Your task to perform on an android device: open chrome and create a bookmark for the current page Image 0: 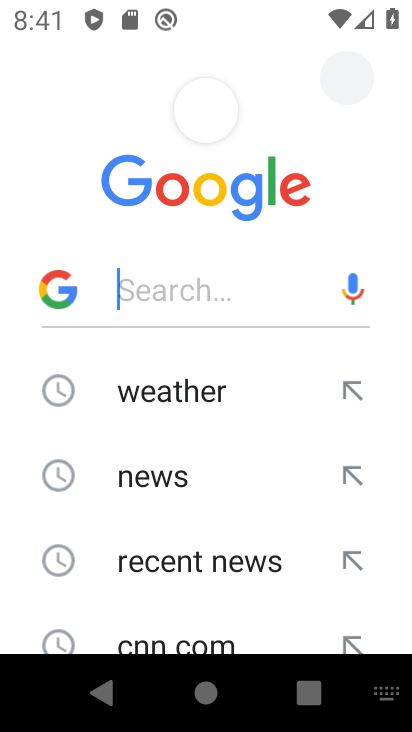
Step 0: press home button
Your task to perform on an android device: open chrome and create a bookmark for the current page Image 1: 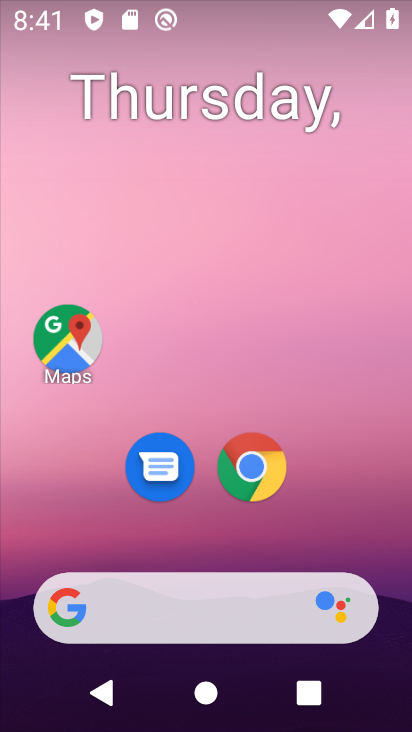
Step 1: click (265, 461)
Your task to perform on an android device: open chrome and create a bookmark for the current page Image 2: 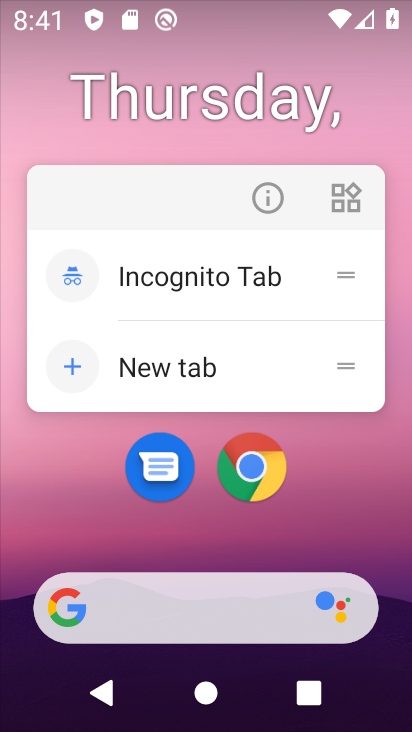
Step 2: click (265, 461)
Your task to perform on an android device: open chrome and create a bookmark for the current page Image 3: 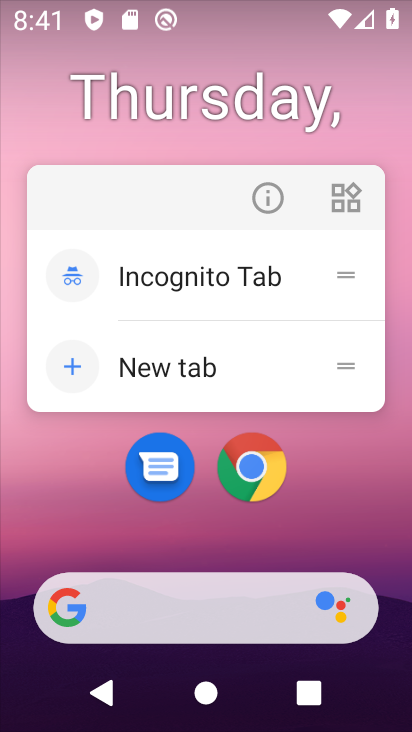
Step 3: click (265, 461)
Your task to perform on an android device: open chrome and create a bookmark for the current page Image 4: 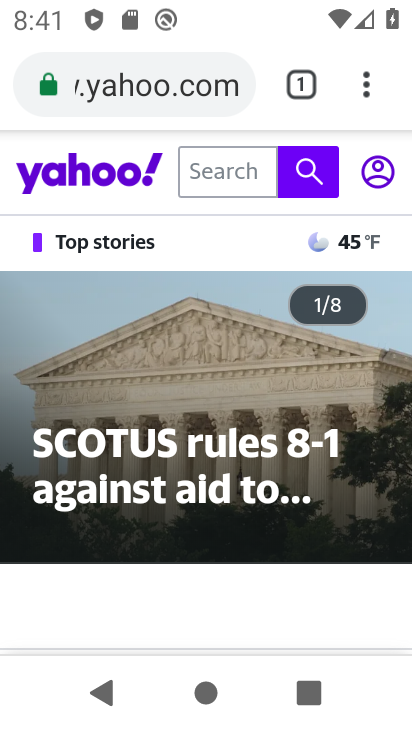
Step 4: click (374, 77)
Your task to perform on an android device: open chrome and create a bookmark for the current page Image 5: 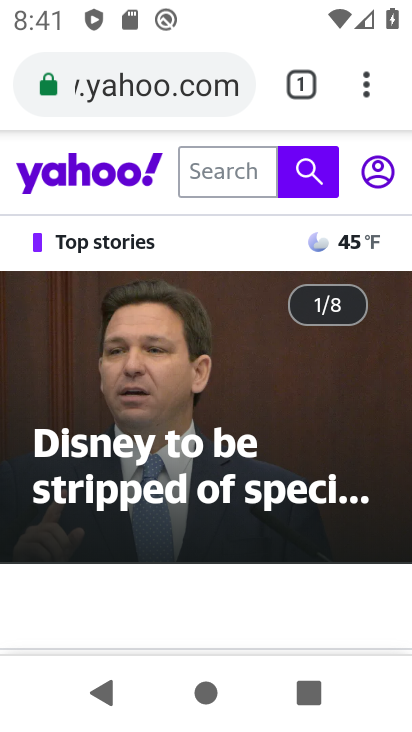
Step 5: click (354, 93)
Your task to perform on an android device: open chrome and create a bookmark for the current page Image 6: 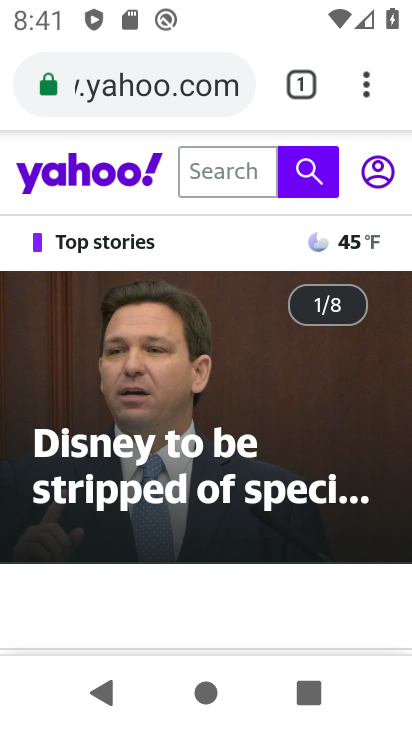
Step 6: click (363, 83)
Your task to perform on an android device: open chrome and create a bookmark for the current page Image 7: 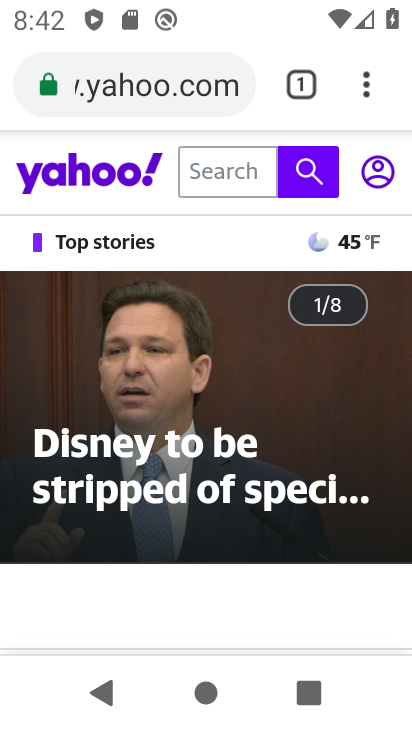
Step 7: click (363, 83)
Your task to perform on an android device: open chrome and create a bookmark for the current page Image 8: 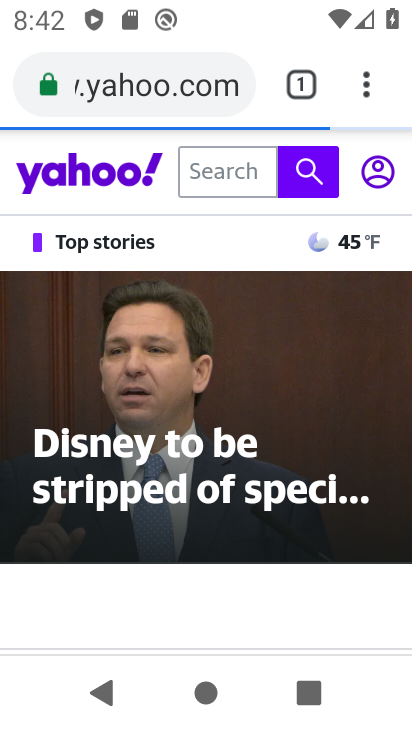
Step 8: click (363, 83)
Your task to perform on an android device: open chrome and create a bookmark for the current page Image 9: 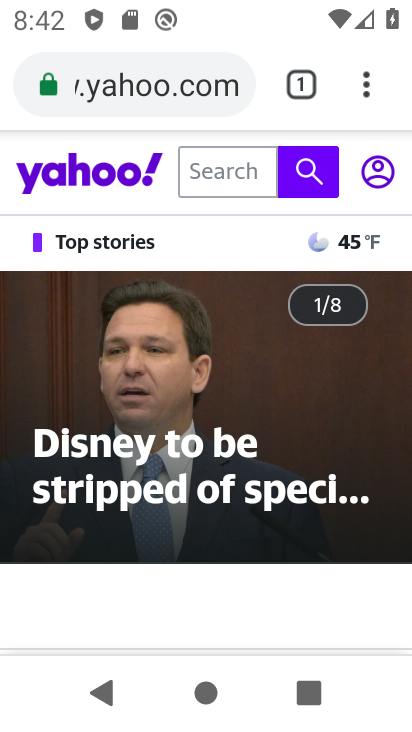
Step 9: click (363, 83)
Your task to perform on an android device: open chrome and create a bookmark for the current page Image 10: 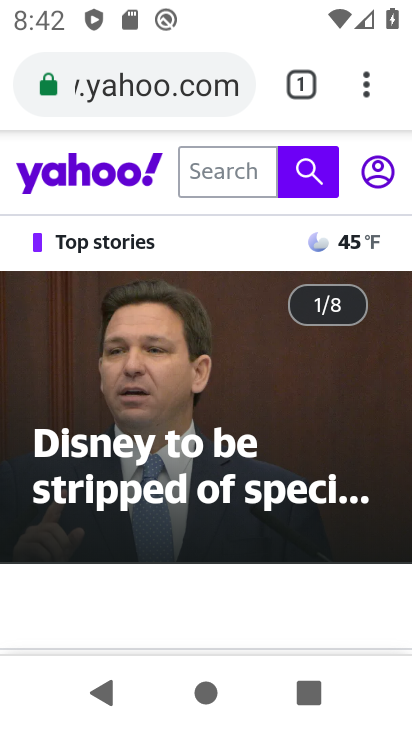
Step 10: click (366, 106)
Your task to perform on an android device: open chrome and create a bookmark for the current page Image 11: 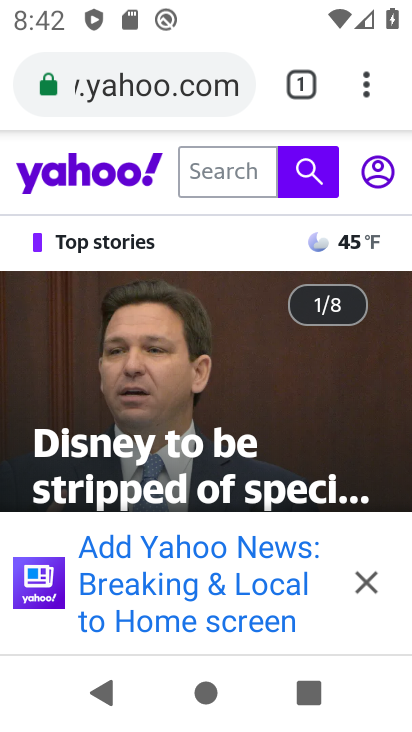
Step 11: click (393, 66)
Your task to perform on an android device: open chrome and create a bookmark for the current page Image 12: 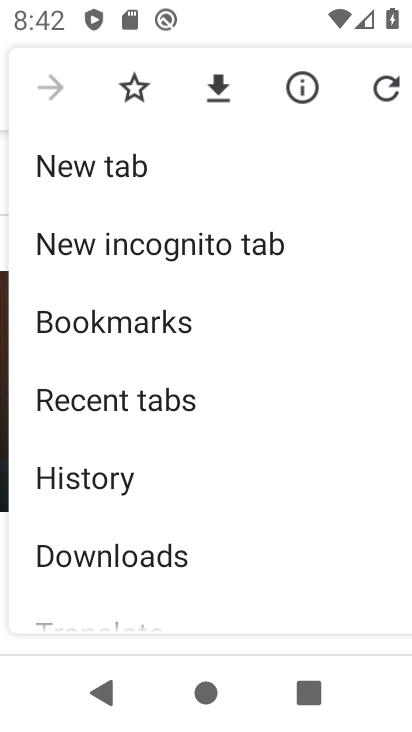
Step 12: click (120, 101)
Your task to perform on an android device: open chrome and create a bookmark for the current page Image 13: 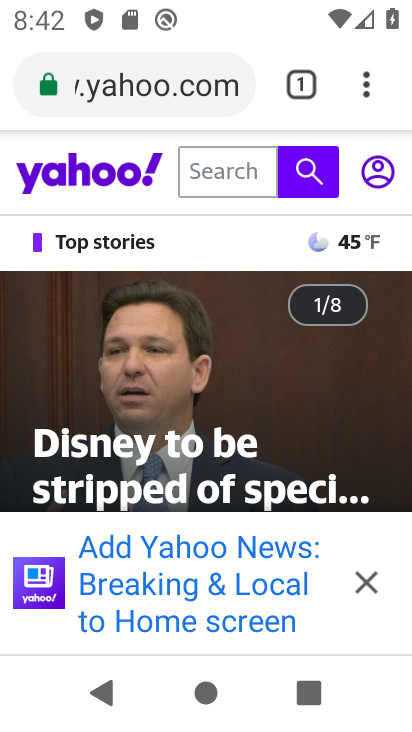
Step 13: task complete